Your task to perform on an android device: Open location settings Image 0: 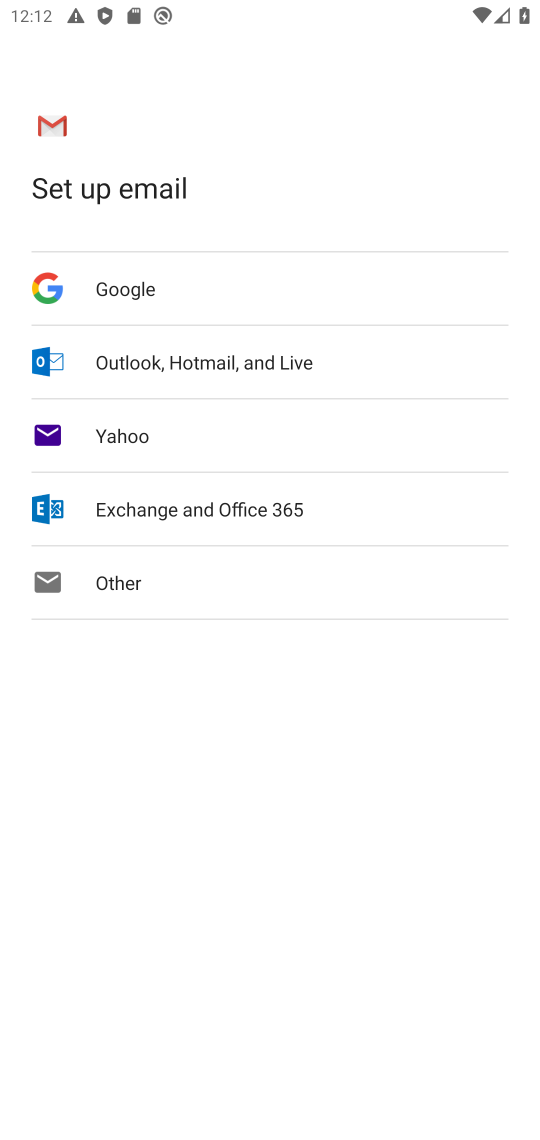
Step 0: press home button
Your task to perform on an android device: Open location settings Image 1: 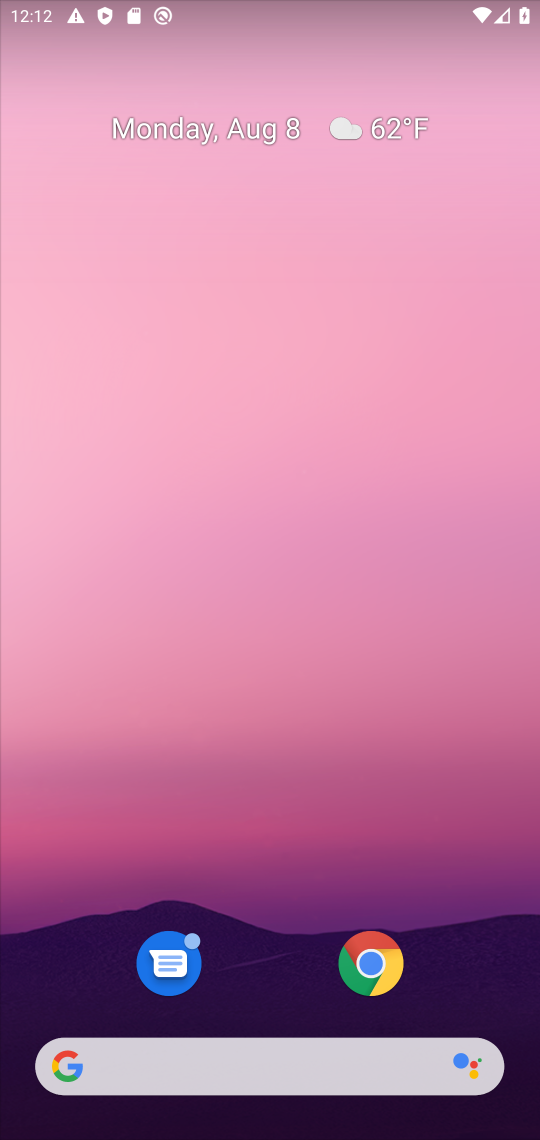
Step 1: drag from (466, 971) to (241, 18)
Your task to perform on an android device: Open location settings Image 2: 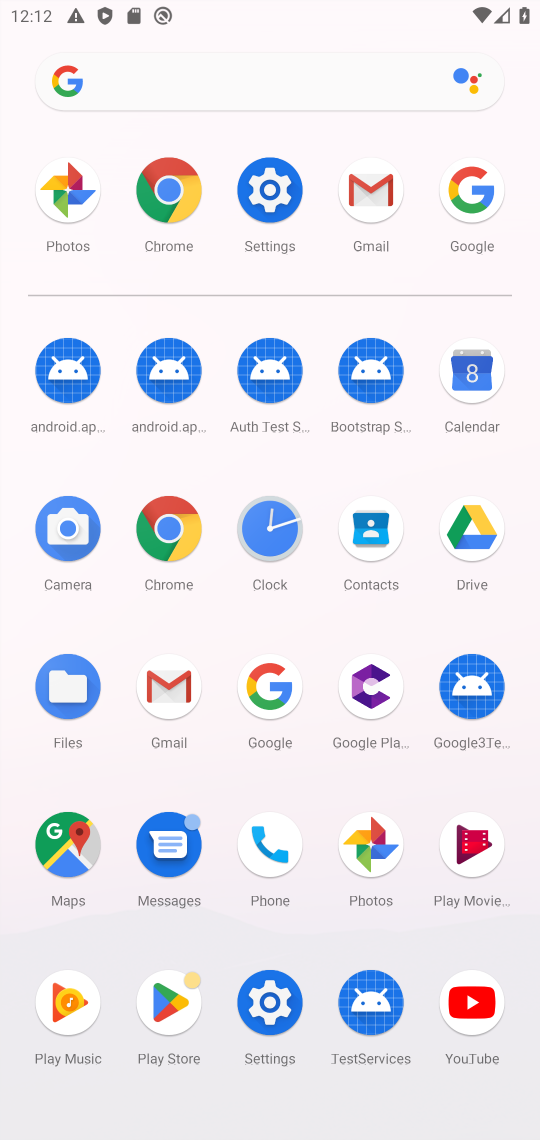
Step 2: click (259, 211)
Your task to perform on an android device: Open location settings Image 3: 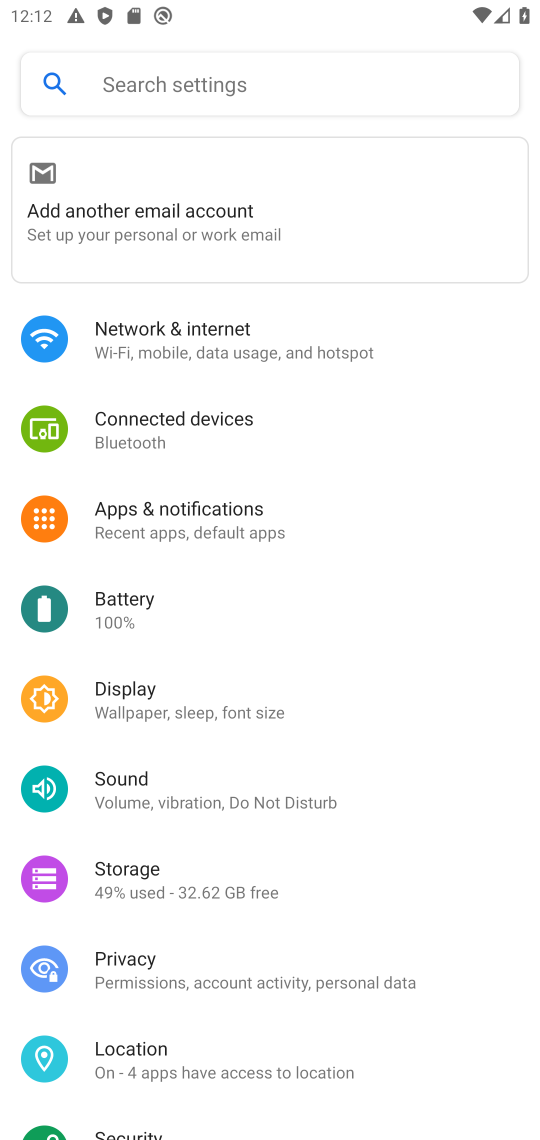
Step 3: click (164, 1061)
Your task to perform on an android device: Open location settings Image 4: 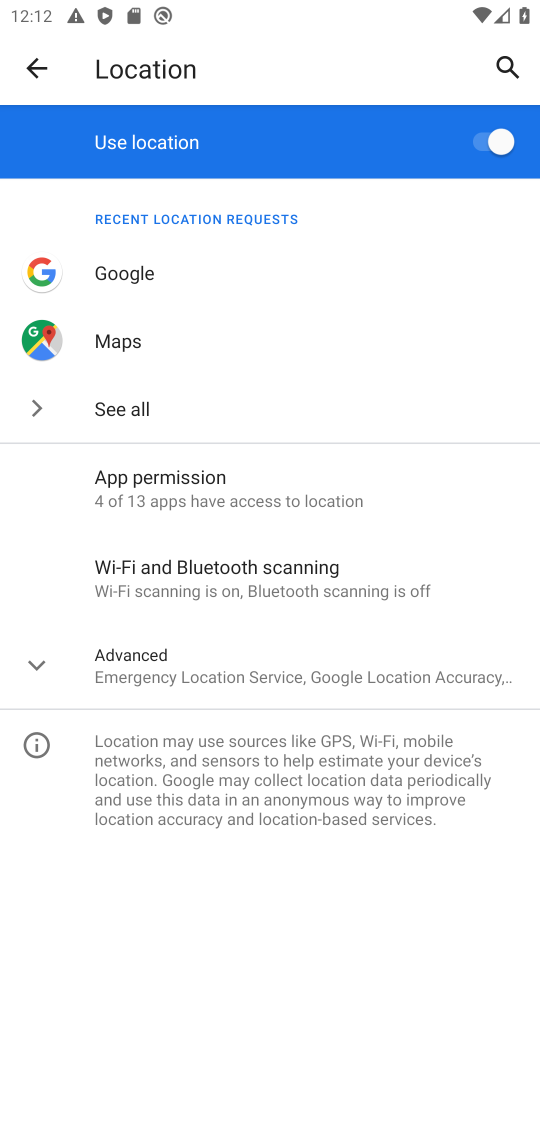
Step 4: task complete